Your task to perform on an android device: Open Amazon Image 0: 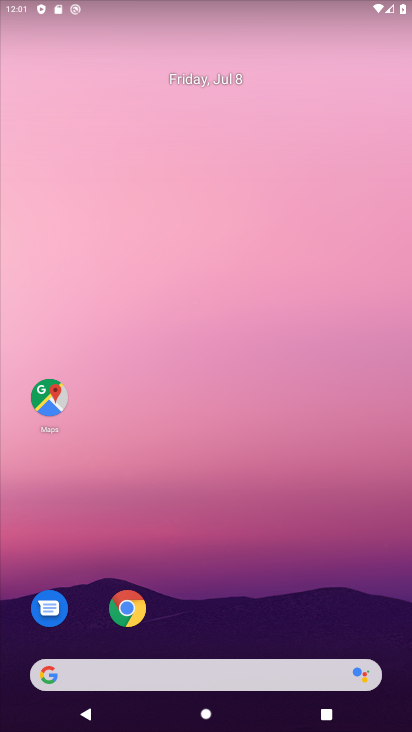
Step 0: drag from (39, 693) to (235, 1)
Your task to perform on an android device: Open Amazon Image 1: 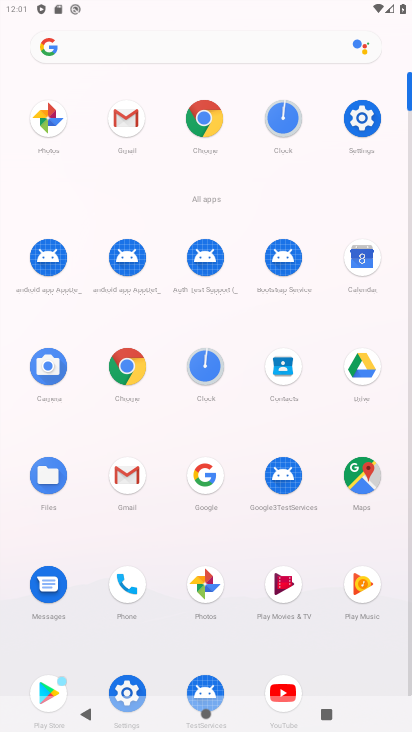
Step 1: click (201, 115)
Your task to perform on an android device: Open Amazon Image 2: 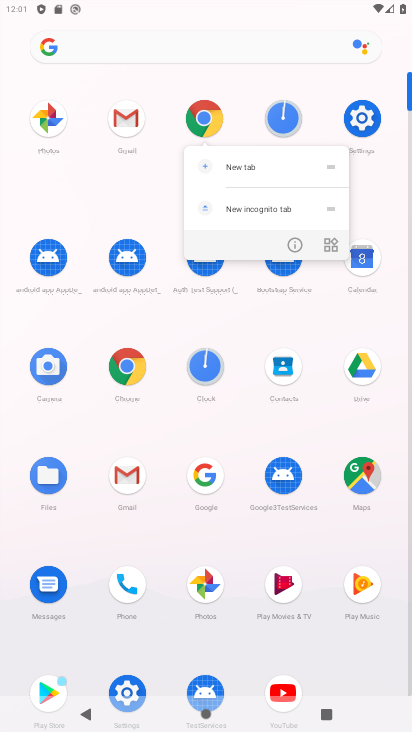
Step 2: click (209, 116)
Your task to perform on an android device: Open Amazon Image 3: 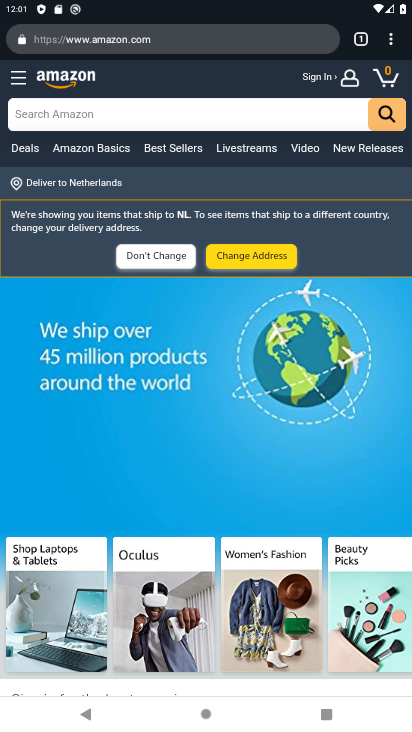
Step 3: task complete